Your task to perform on an android device: Open Amazon Image 0: 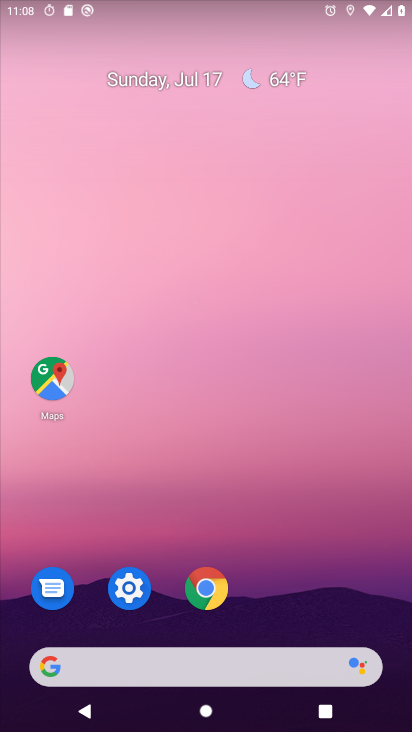
Step 0: drag from (284, 712) to (184, 57)
Your task to perform on an android device: Open Amazon Image 1: 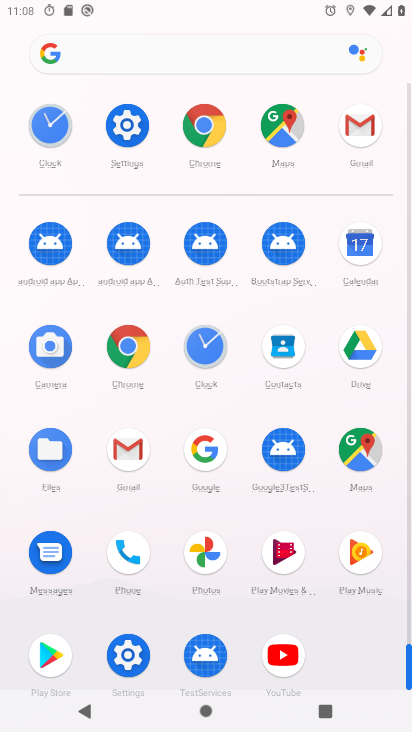
Step 1: click (122, 342)
Your task to perform on an android device: Open Amazon Image 2: 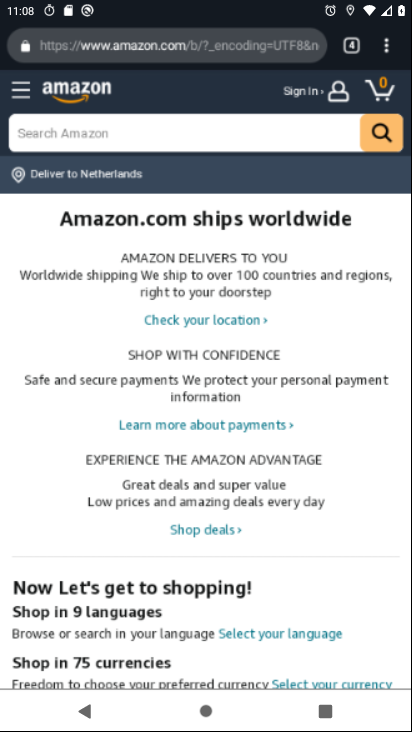
Step 2: click (125, 344)
Your task to perform on an android device: Open Amazon Image 3: 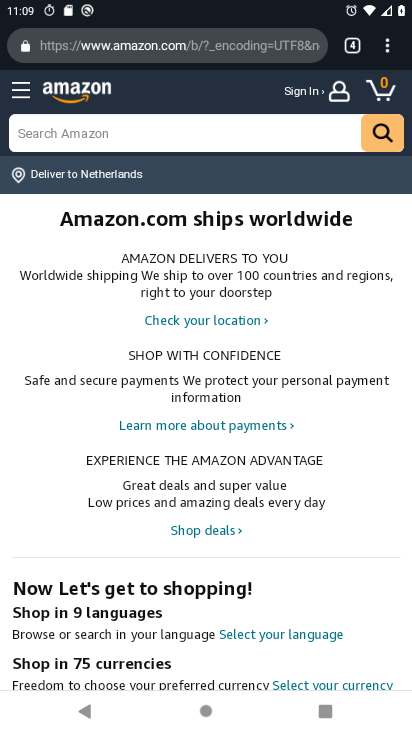
Step 3: task complete